Your task to perform on an android device: set default search engine in the chrome app Image 0: 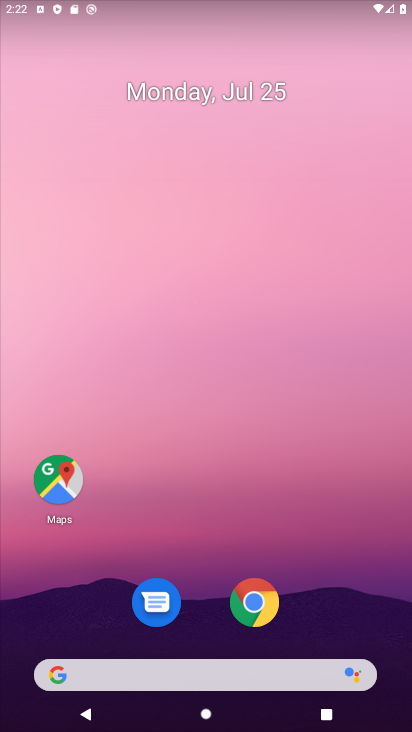
Step 0: click (268, 592)
Your task to perform on an android device: set default search engine in the chrome app Image 1: 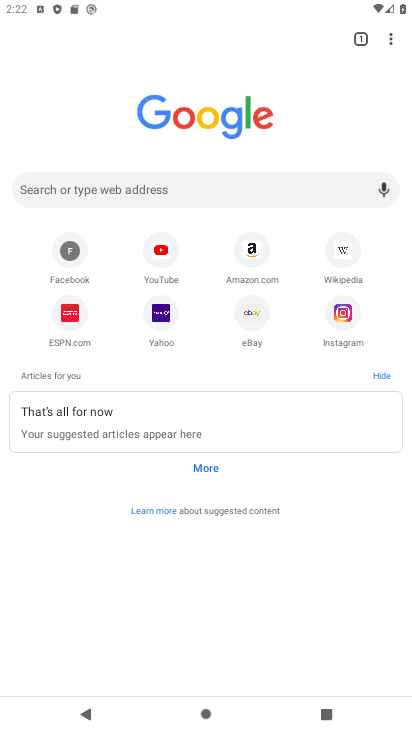
Step 1: click (393, 38)
Your task to perform on an android device: set default search engine in the chrome app Image 2: 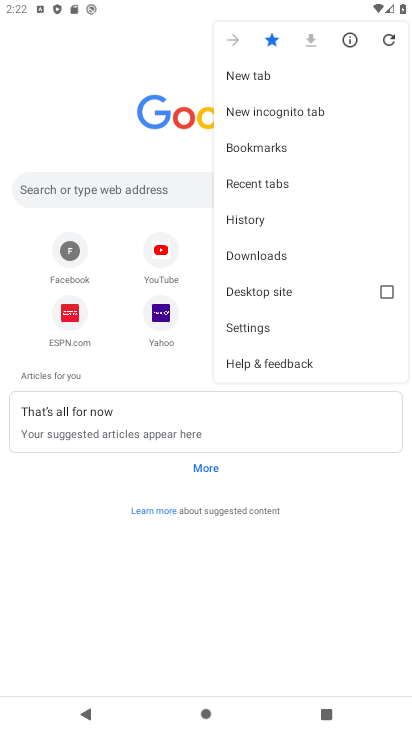
Step 2: click (245, 322)
Your task to perform on an android device: set default search engine in the chrome app Image 3: 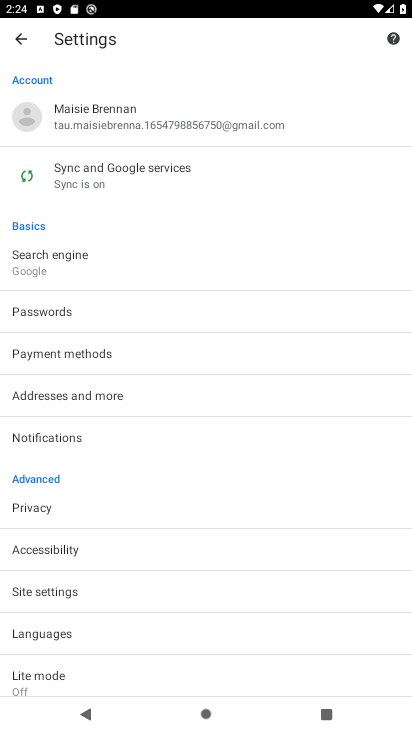
Step 3: press home button
Your task to perform on an android device: set default search engine in the chrome app Image 4: 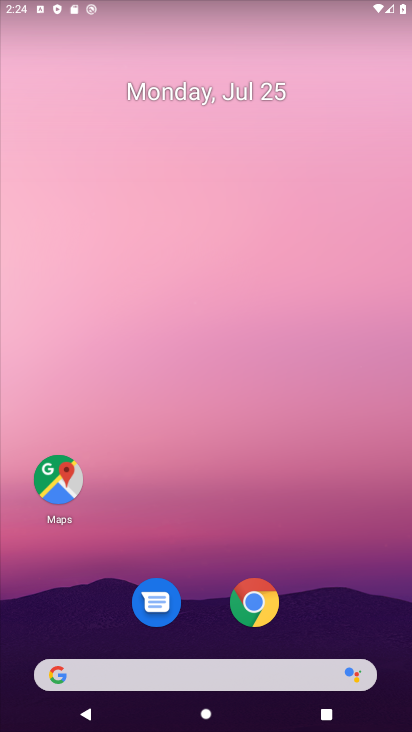
Step 4: drag from (228, 481) to (245, 135)
Your task to perform on an android device: set default search engine in the chrome app Image 5: 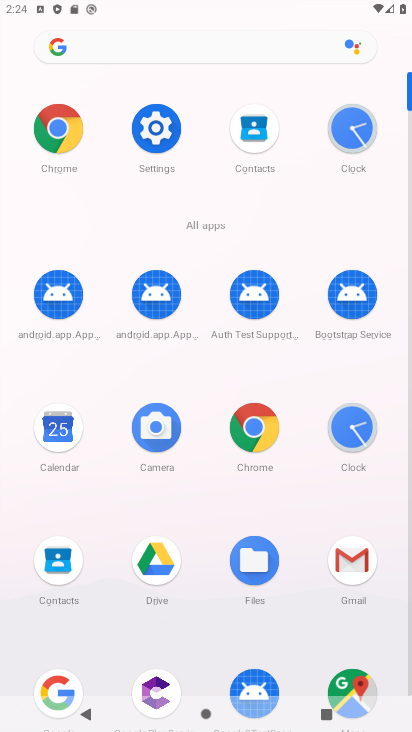
Step 5: click (246, 415)
Your task to perform on an android device: set default search engine in the chrome app Image 6: 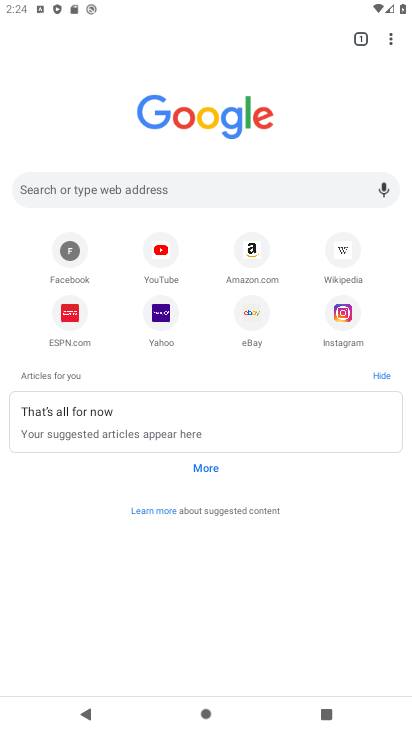
Step 6: task complete